Your task to perform on an android device: change the clock display to analog Image 0: 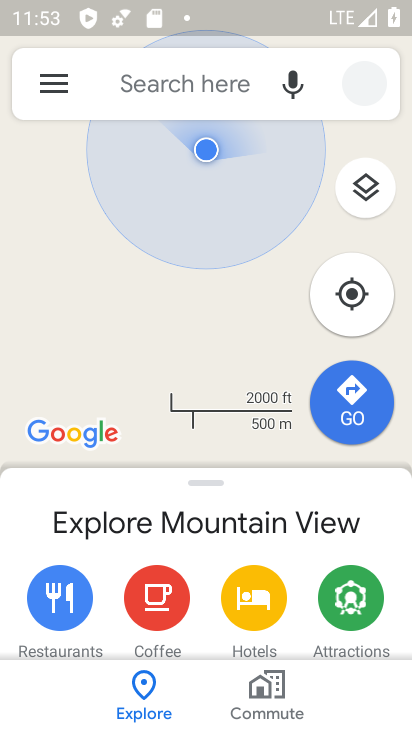
Step 0: press back button
Your task to perform on an android device: change the clock display to analog Image 1: 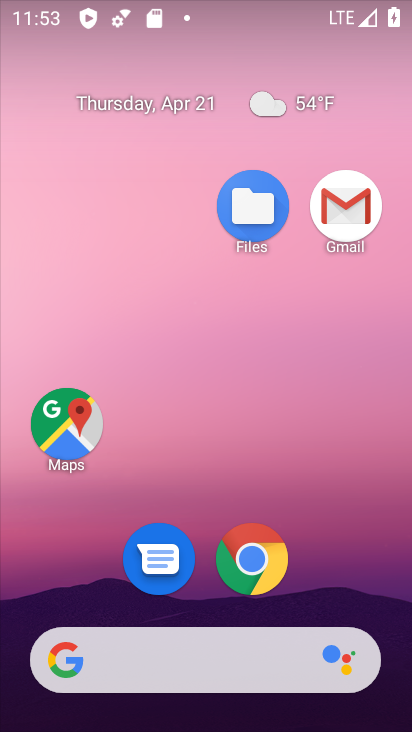
Step 1: drag from (283, 615) to (353, 142)
Your task to perform on an android device: change the clock display to analog Image 2: 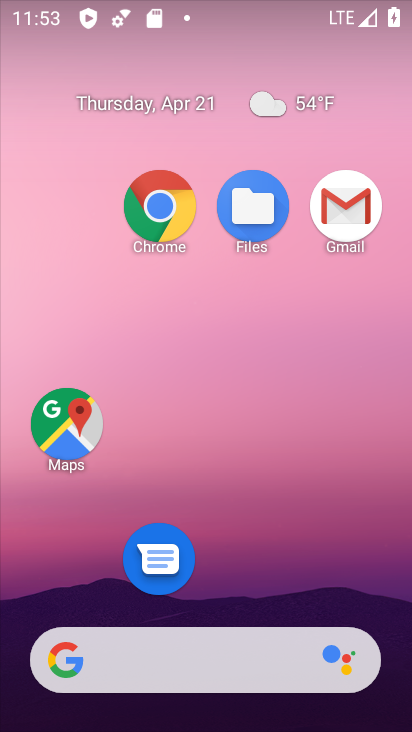
Step 2: drag from (291, 629) to (380, 5)
Your task to perform on an android device: change the clock display to analog Image 3: 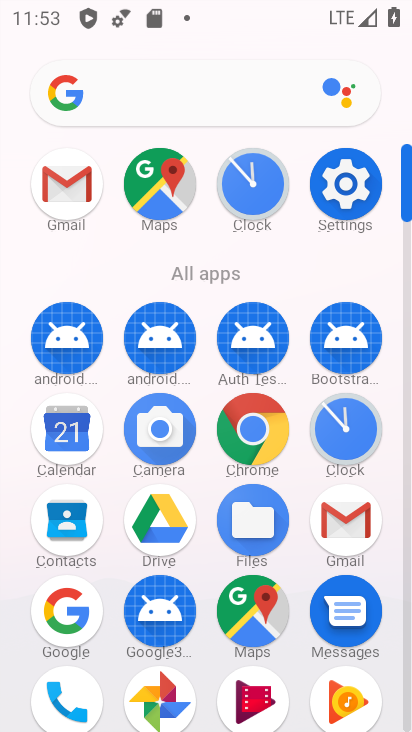
Step 3: click (357, 413)
Your task to perform on an android device: change the clock display to analog Image 4: 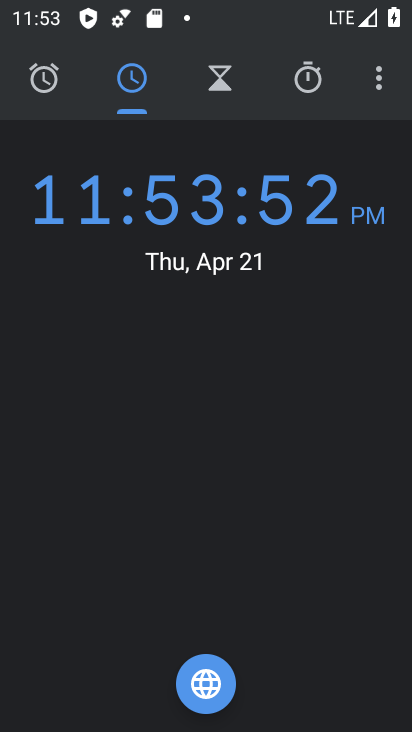
Step 4: click (378, 62)
Your task to perform on an android device: change the clock display to analog Image 5: 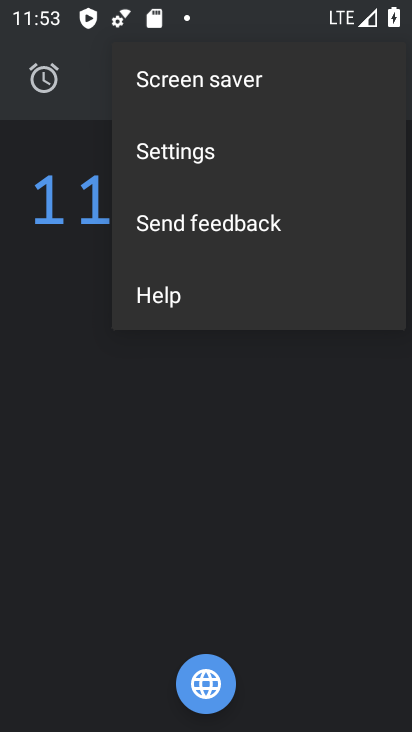
Step 5: click (255, 145)
Your task to perform on an android device: change the clock display to analog Image 6: 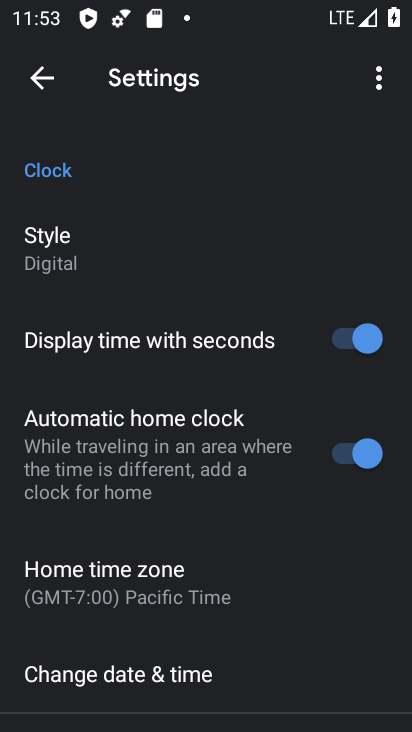
Step 6: click (165, 229)
Your task to perform on an android device: change the clock display to analog Image 7: 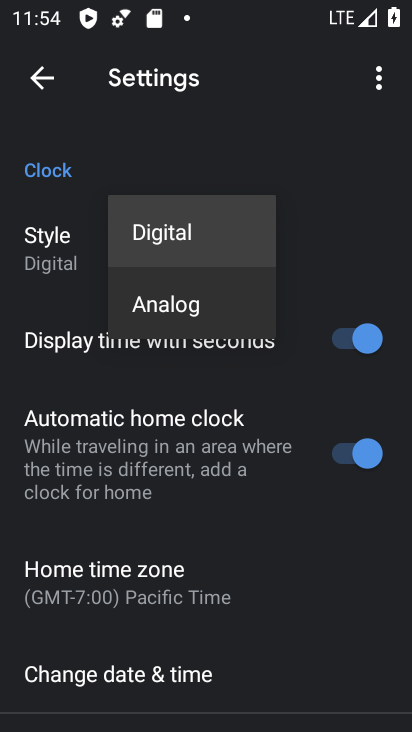
Step 7: click (154, 312)
Your task to perform on an android device: change the clock display to analog Image 8: 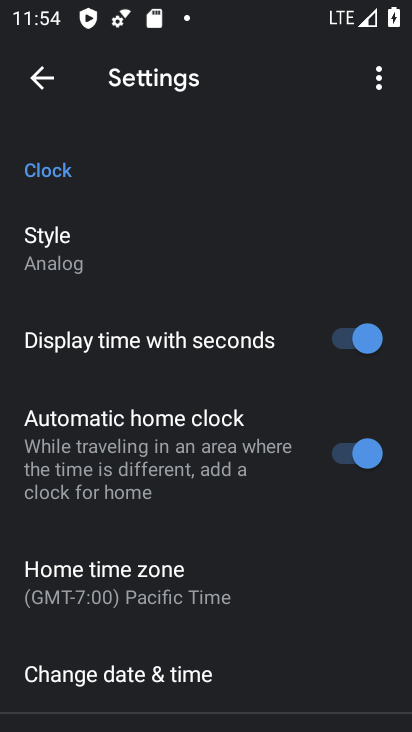
Step 8: task complete